Your task to perform on an android device: manage bookmarks in the chrome app Image 0: 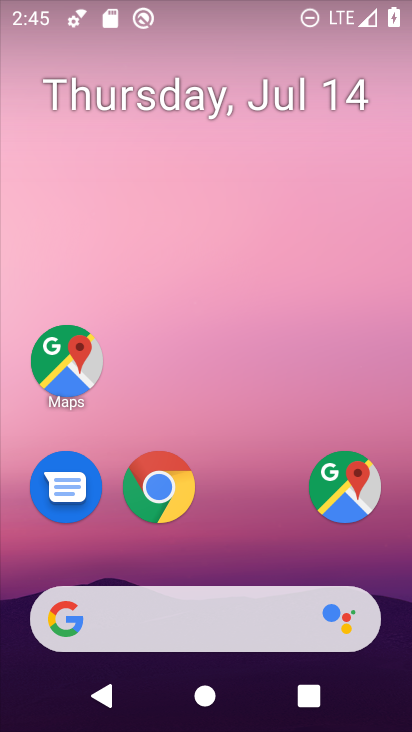
Step 0: drag from (271, 533) to (319, 176)
Your task to perform on an android device: manage bookmarks in the chrome app Image 1: 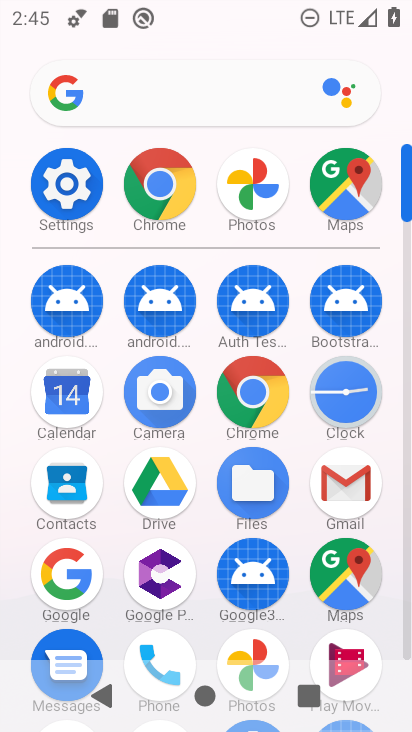
Step 1: click (267, 385)
Your task to perform on an android device: manage bookmarks in the chrome app Image 2: 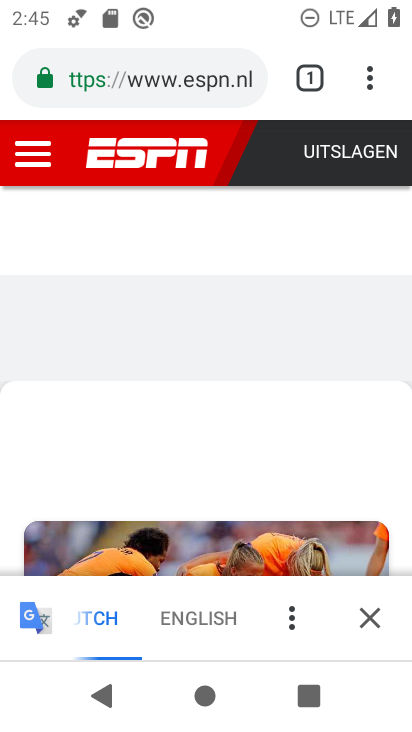
Step 2: click (367, 87)
Your task to perform on an android device: manage bookmarks in the chrome app Image 3: 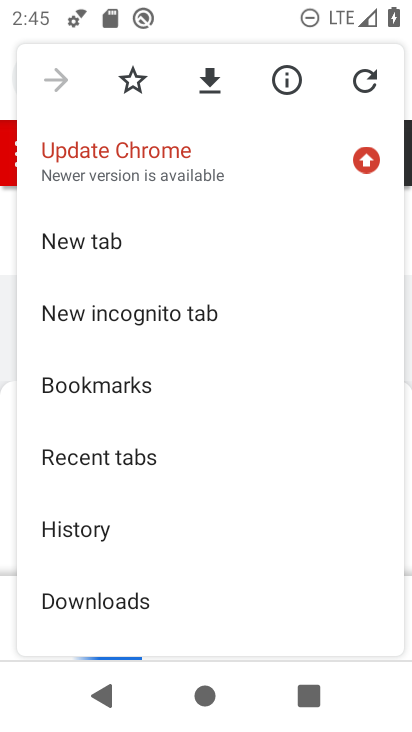
Step 3: drag from (303, 455) to (292, 351)
Your task to perform on an android device: manage bookmarks in the chrome app Image 4: 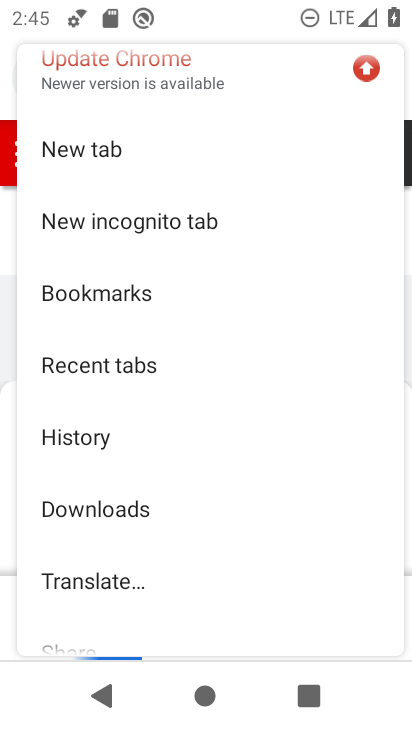
Step 4: drag from (294, 478) to (294, 394)
Your task to perform on an android device: manage bookmarks in the chrome app Image 5: 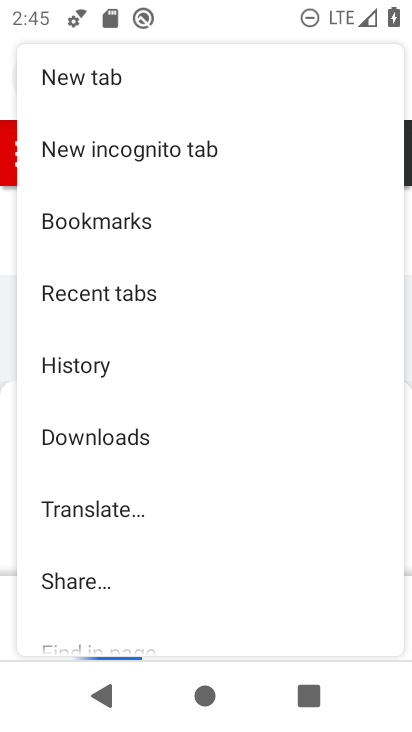
Step 5: drag from (298, 483) to (296, 371)
Your task to perform on an android device: manage bookmarks in the chrome app Image 6: 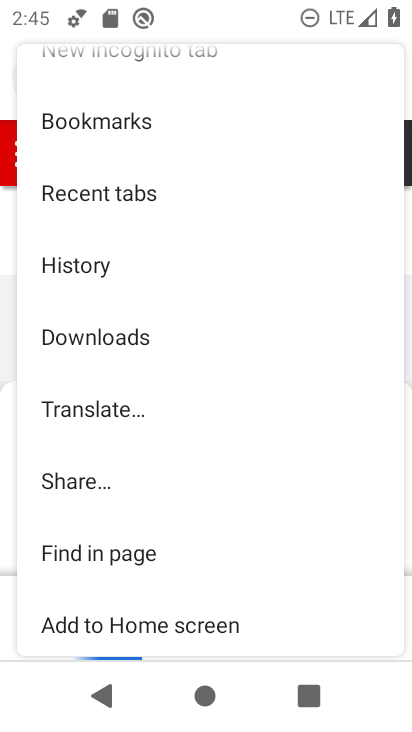
Step 6: drag from (294, 466) to (289, 374)
Your task to perform on an android device: manage bookmarks in the chrome app Image 7: 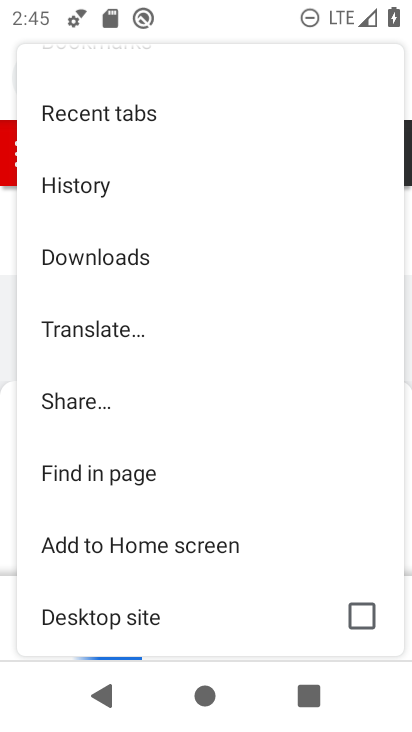
Step 7: drag from (309, 314) to (305, 393)
Your task to perform on an android device: manage bookmarks in the chrome app Image 8: 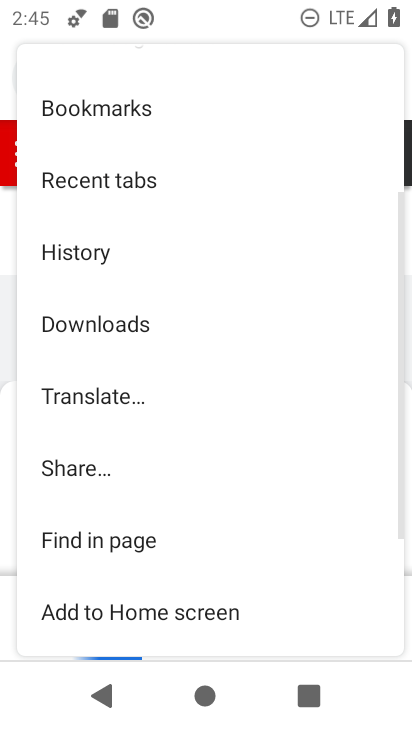
Step 8: drag from (298, 300) to (286, 554)
Your task to perform on an android device: manage bookmarks in the chrome app Image 9: 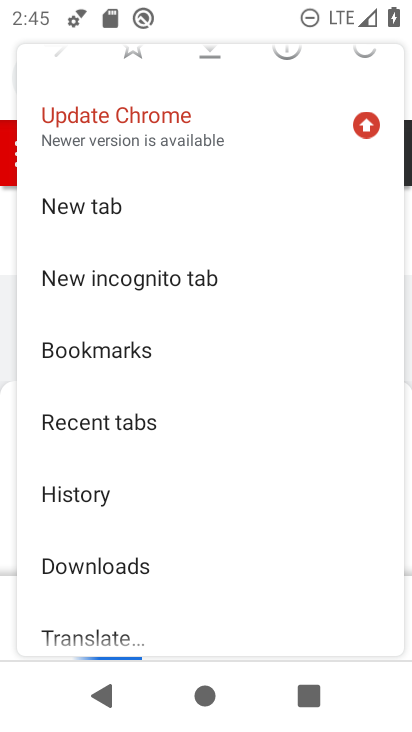
Step 9: click (171, 361)
Your task to perform on an android device: manage bookmarks in the chrome app Image 10: 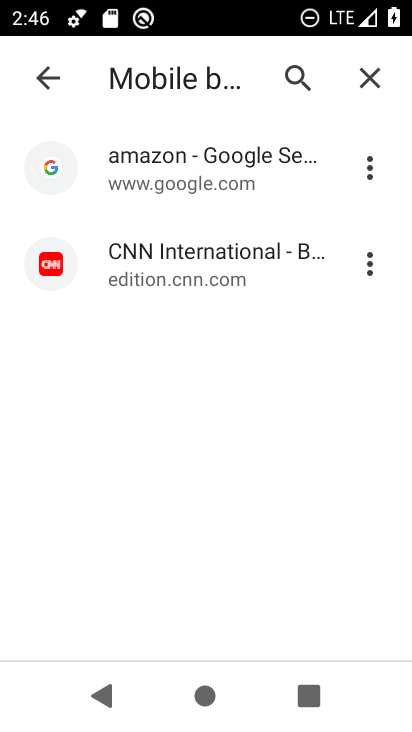
Step 10: click (371, 256)
Your task to perform on an android device: manage bookmarks in the chrome app Image 11: 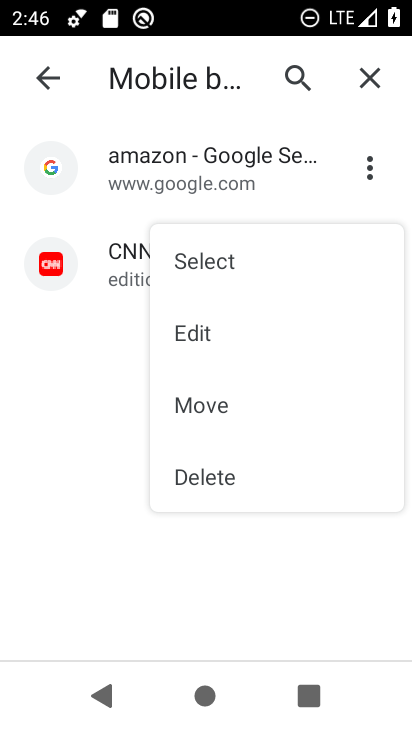
Step 11: click (248, 342)
Your task to perform on an android device: manage bookmarks in the chrome app Image 12: 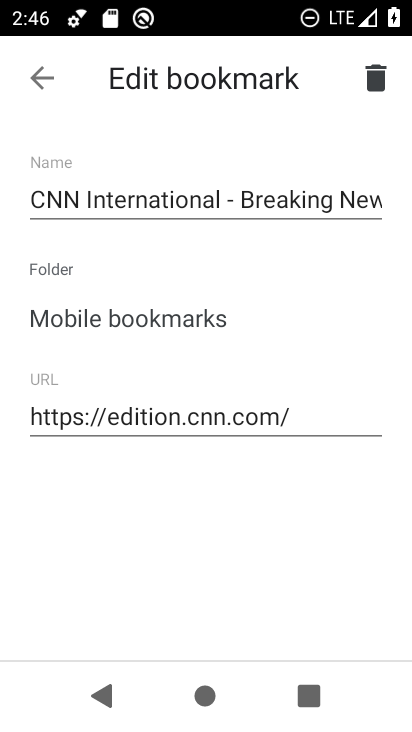
Step 12: click (77, 199)
Your task to perform on an android device: manage bookmarks in the chrome app Image 13: 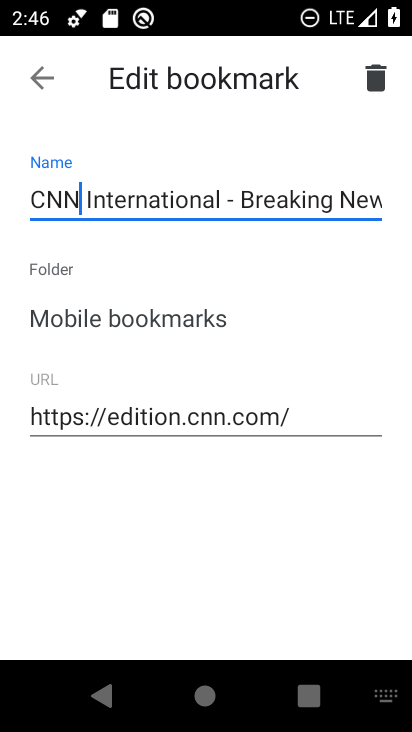
Step 13: type "N"
Your task to perform on an android device: manage bookmarks in the chrome app Image 14: 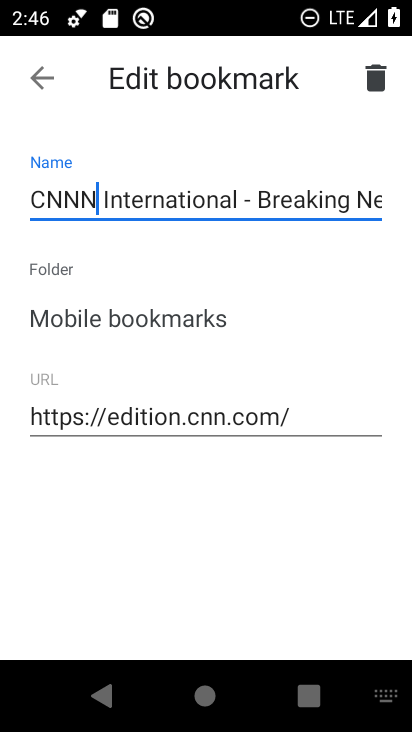
Step 14: click (50, 85)
Your task to perform on an android device: manage bookmarks in the chrome app Image 15: 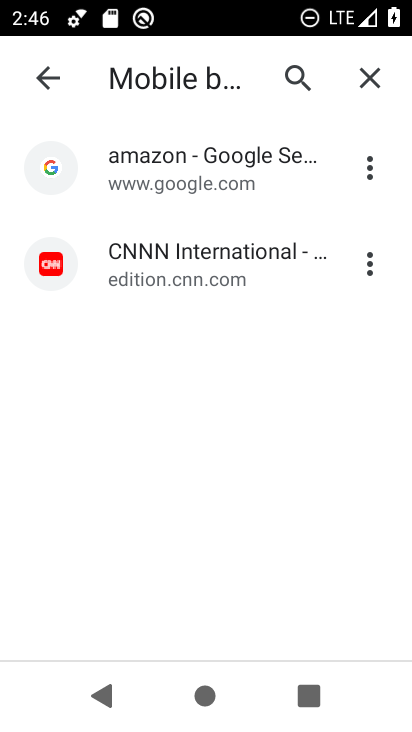
Step 15: task complete